Your task to perform on an android device: toggle airplane mode Image 0: 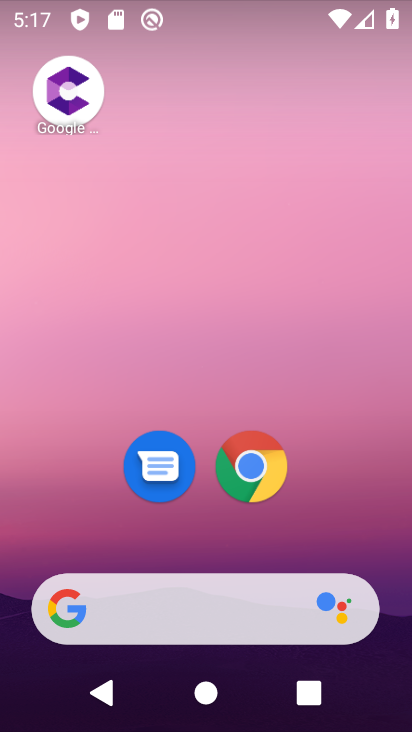
Step 0: drag from (344, 518) to (371, 134)
Your task to perform on an android device: toggle airplane mode Image 1: 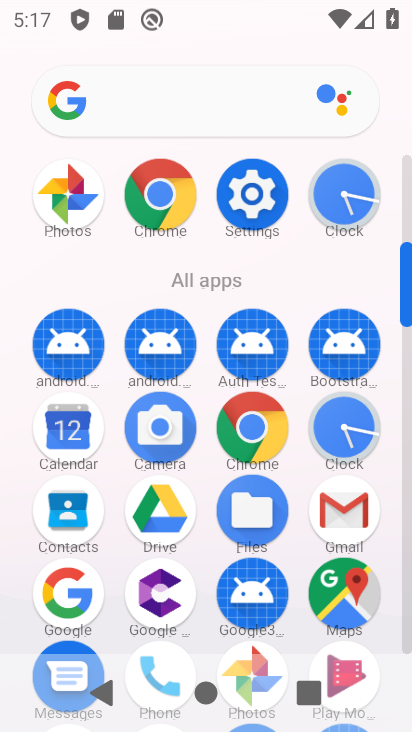
Step 1: click (231, 189)
Your task to perform on an android device: toggle airplane mode Image 2: 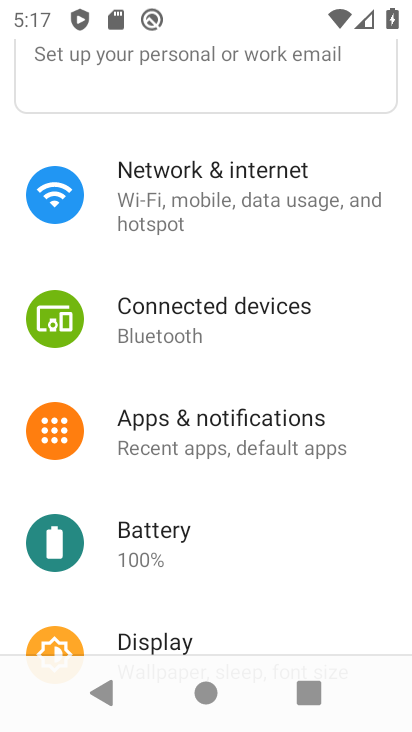
Step 2: click (231, 189)
Your task to perform on an android device: toggle airplane mode Image 3: 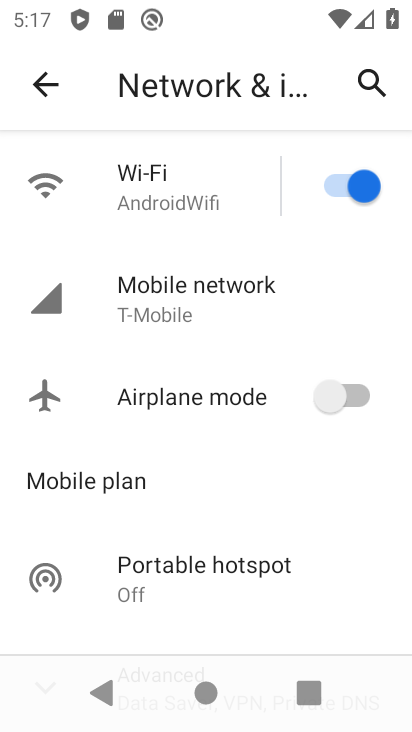
Step 3: click (340, 387)
Your task to perform on an android device: toggle airplane mode Image 4: 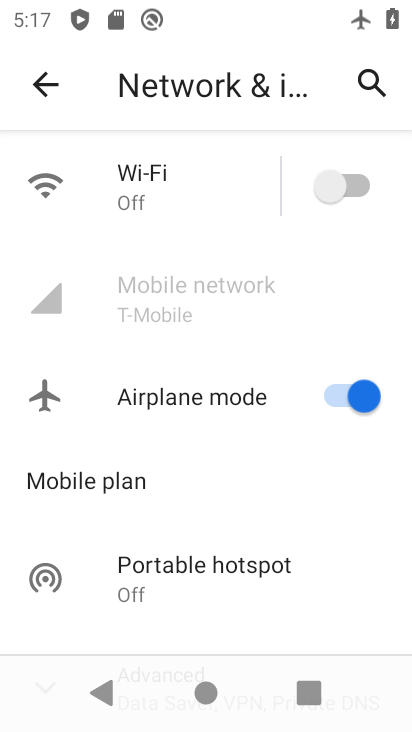
Step 4: task complete